Your task to perform on an android device: Go to Reddit.com Image 0: 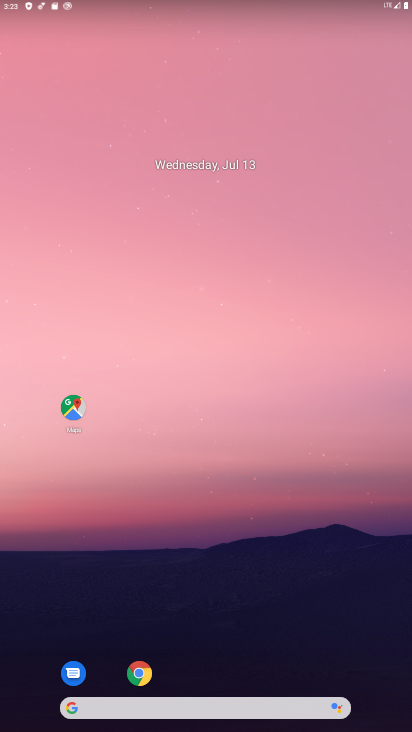
Step 0: drag from (243, 727) to (239, 86)
Your task to perform on an android device: Go to Reddit.com Image 1: 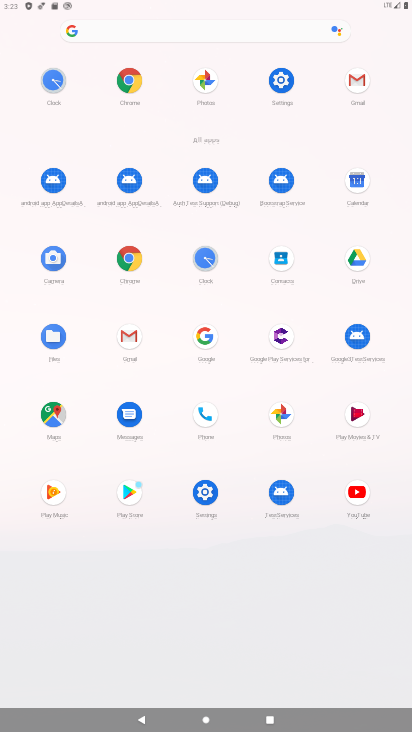
Step 1: click (126, 80)
Your task to perform on an android device: Go to Reddit.com Image 2: 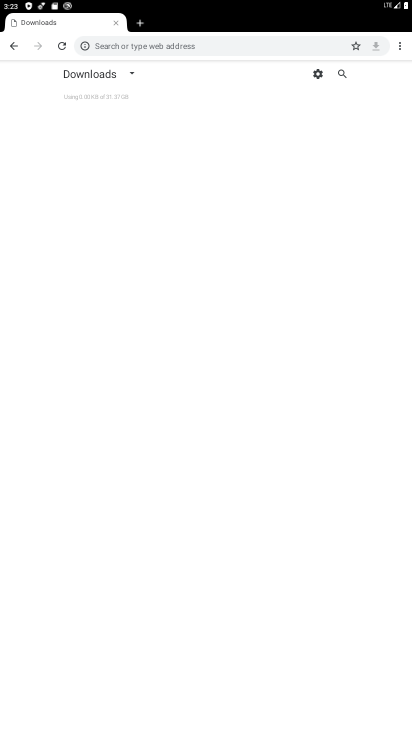
Step 2: click (399, 45)
Your task to perform on an android device: Go to Reddit.com Image 3: 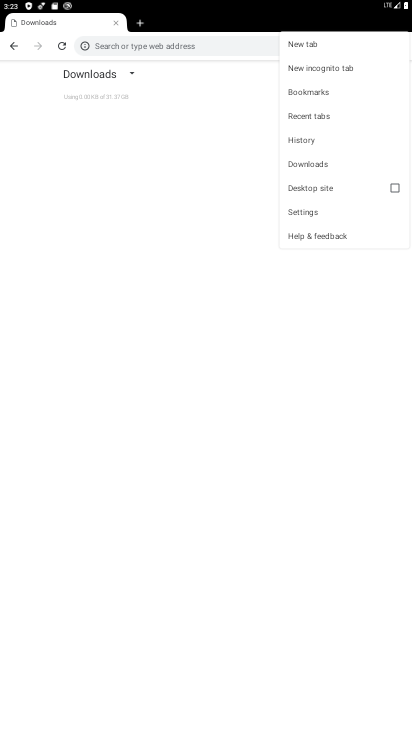
Step 3: click (312, 39)
Your task to perform on an android device: Go to Reddit.com Image 4: 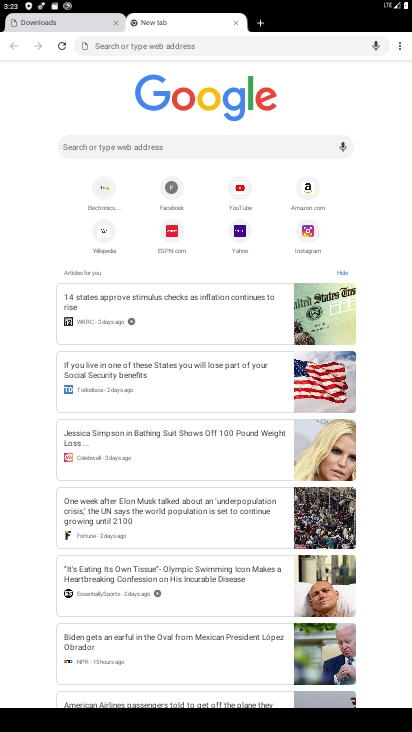
Step 4: click (198, 145)
Your task to perform on an android device: Go to Reddit.com Image 5: 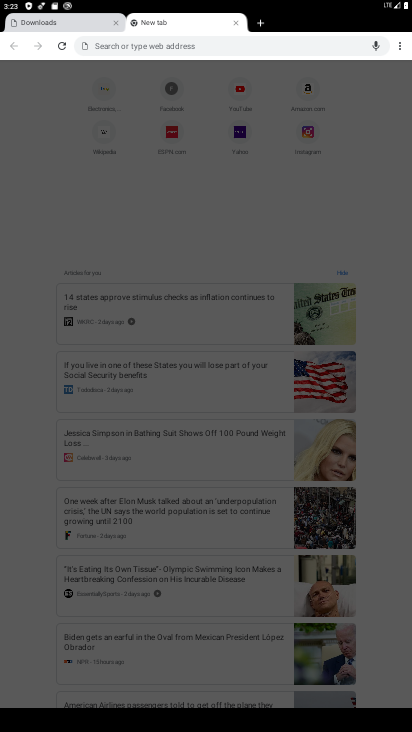
Step 5: type "Reddit.com"
Your task to perform on an android device: Go to Reddit.com Image 6: 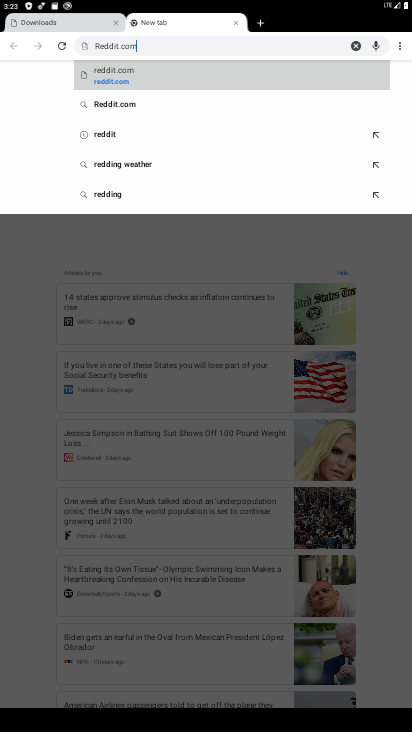
Step 6: type ""
Your task to perform on an android device: Go to Reddit.com Image 7: 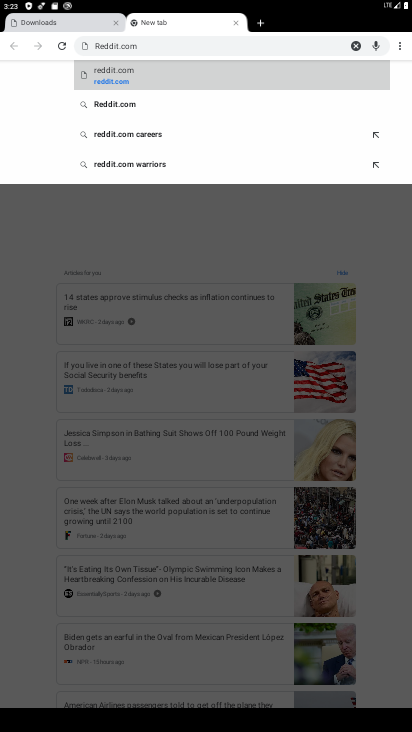
Step 7: click (122, 73)
Your task to perform on an android device: Go to Reddit.com Image 8: 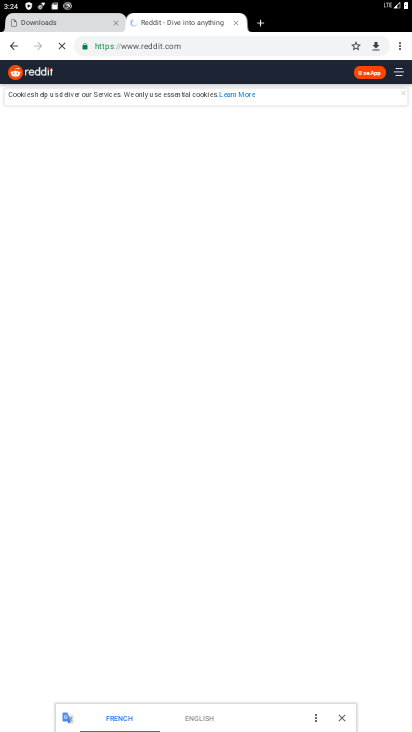
Step 8: task complete